Your task to perform on an android device: Open the Play Movies app and select the watchlist tab. Image 0: 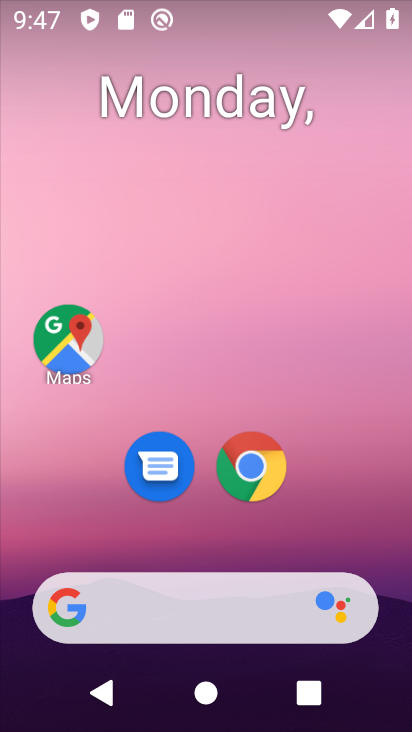
Step 0: drag from (230, 495) to (221, 168)
Your task to perform on an android device: Open the Play Movies app and select the watchlist tab. Image 1: 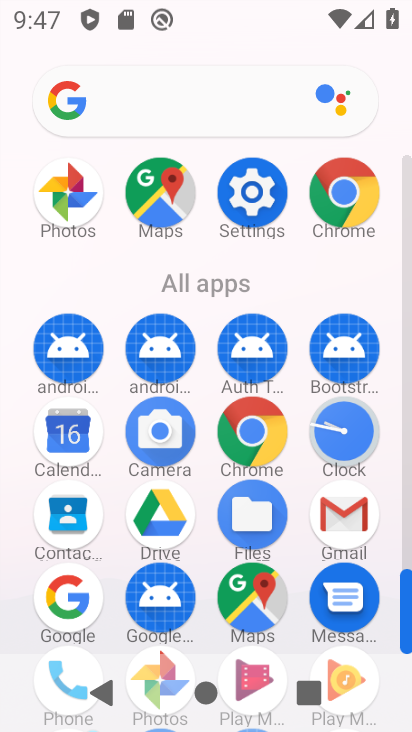
Step 1: drag from (287, 627) to (305, 427)
Your task to perform on an android device: Open the Play Movies app and select the watchlist tab. Image 2: 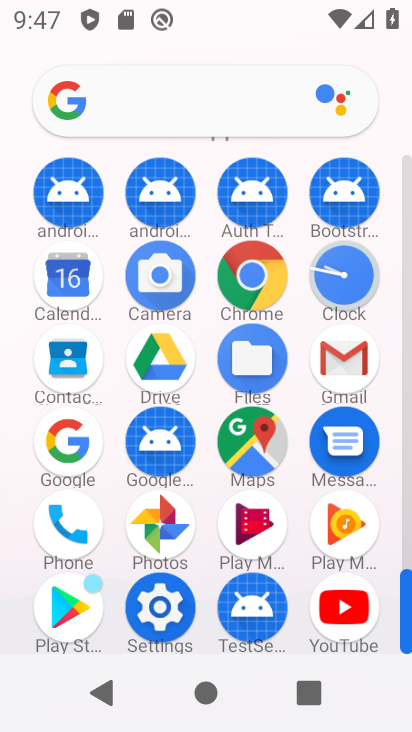
Step 2: click (250, 529)
Your task to perform on an android device: Open the Play Movies app and select the watchlist tab. Image 3: 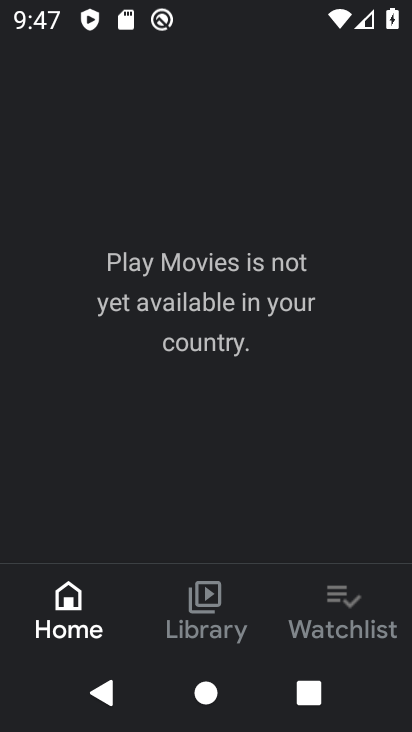
Step 3: click (321, 603)
Your task to perform on an android device: Open the Play Movies app and select the watchlist tab. Image 4: 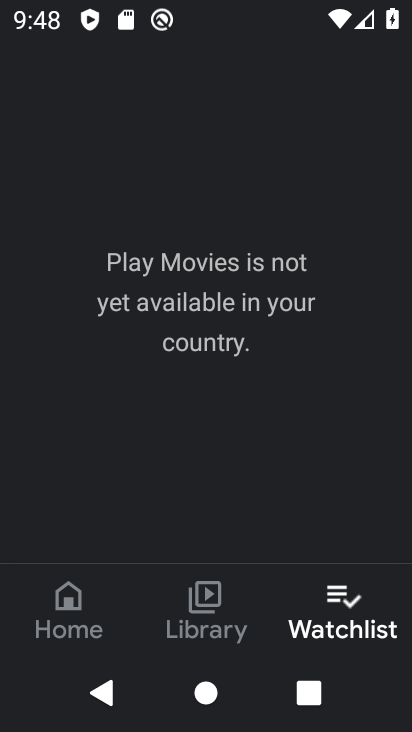
Step 4: task complete